Your task to perform on an android device: Open Google Maps and go to "Timeline" Image 0: 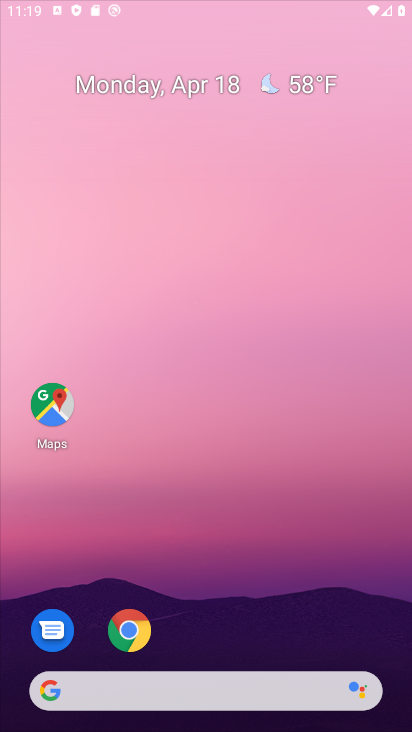
Step 0: drag from (226, 584) to (235, 188)
Your task to perform on an android device: Open Google Maps and go to "Timeline" Image 1: 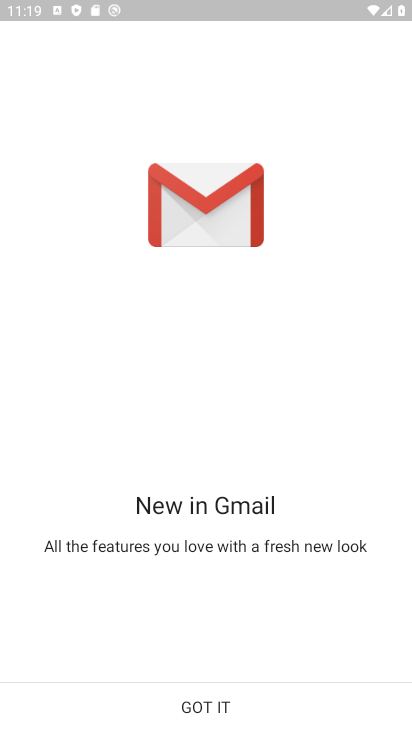
Step 1: press home button
Your task to perform on an android device: Open Google Maps and go to "Timeline" Image 2: 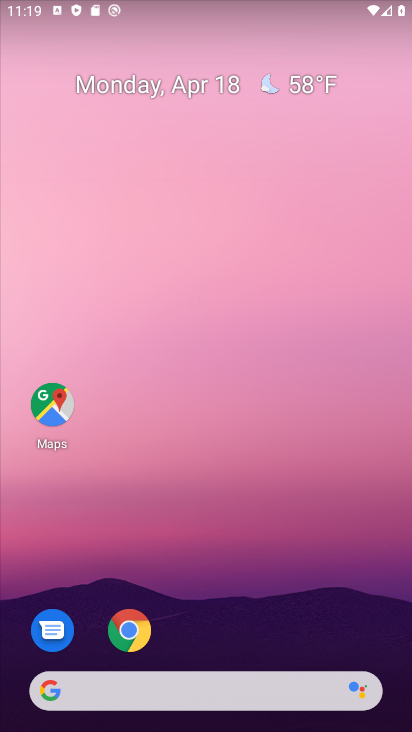
Step 2: click (50, 402)
Your task to perform on an android device: Open Google Maps and go to "Timeline" Image 3: 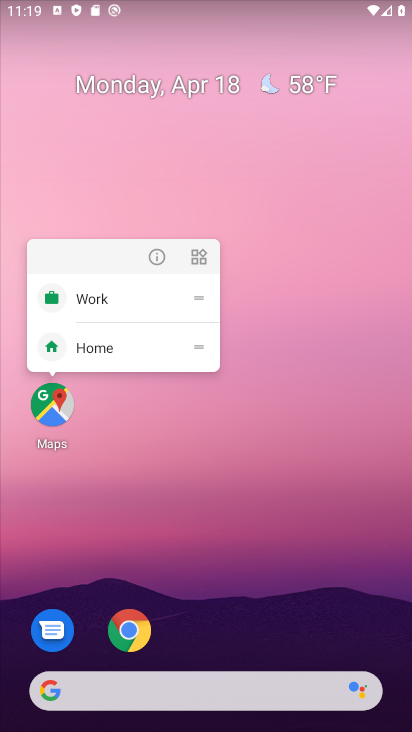
Step 3: click (50, 401)
Your task to perform on an android device: Open Google Maps and go to "Timeline" Image 4: 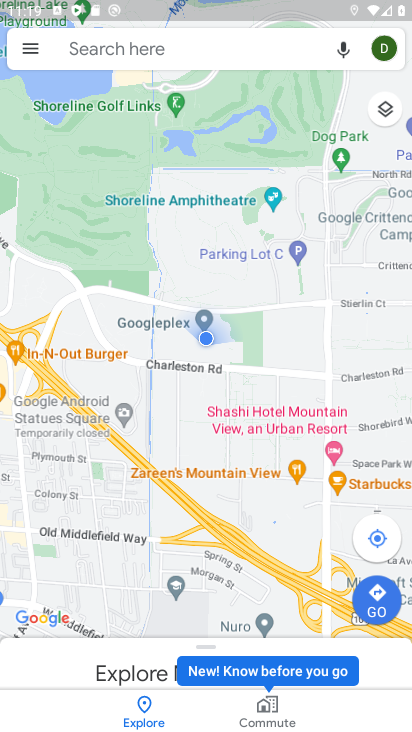
Step 4: click (21, 52)
Your task to perform on an android device: Open Google Maps and go to "Timeline" Image 5: 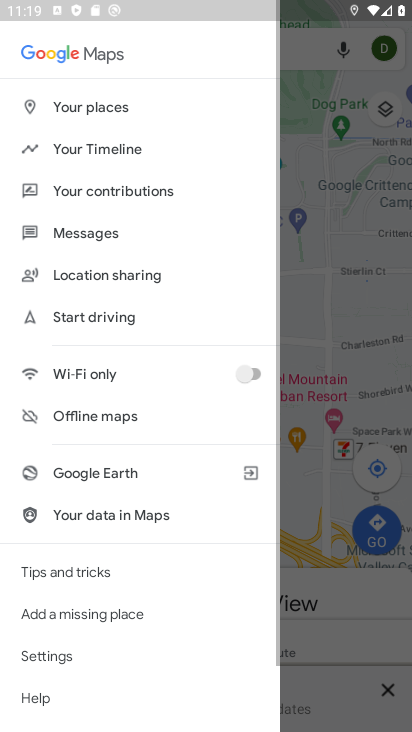
Step 5: click (91, 155)
Your task to perform on an android device: Open Google Maps and go to "Timeline" Image 6: 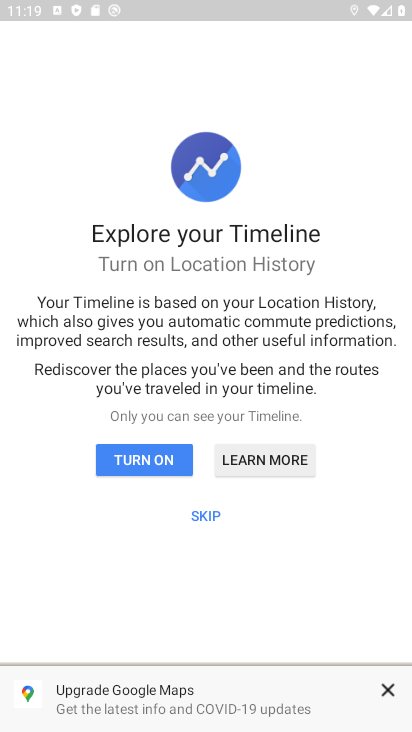
Step 6: click (155, 460)
Your task to perform on an android device: Open Google Maps and go to "Timeline" Image 7: 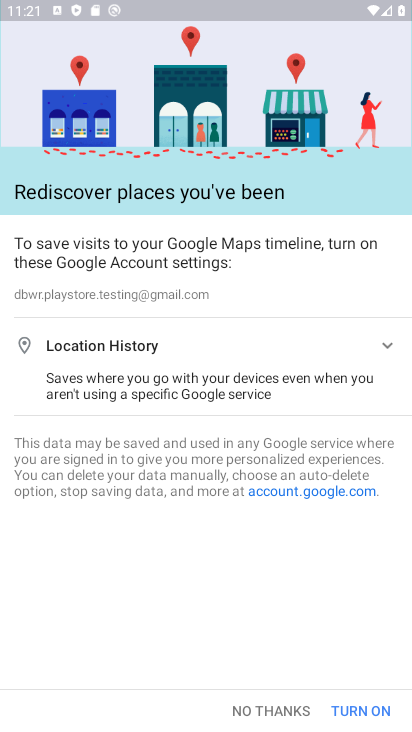
Step 7: click (353, 703)
Your task to perform on an android device: Open Google Maps and go to "Timeline" Image 8: 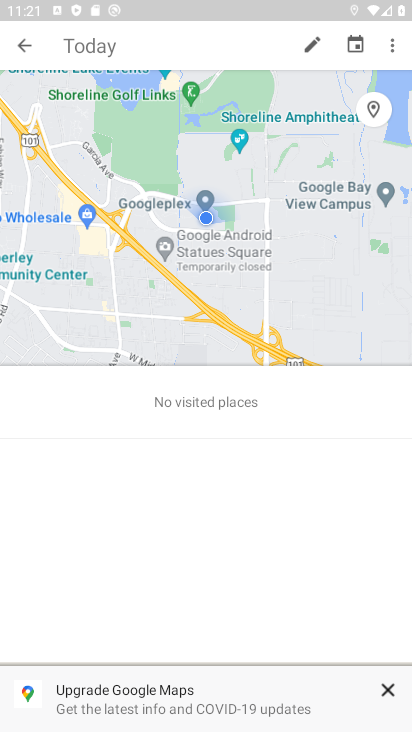
Step 8: task complete